Your task to perform on an android device: toggle translation in the chrome app Image 0: 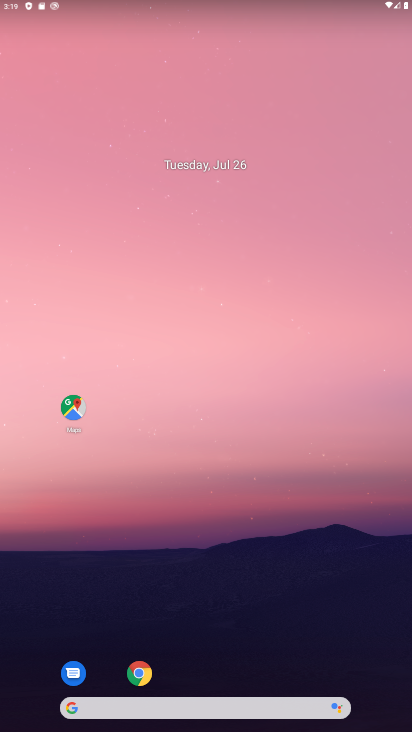
Step 0: drag from (301, 626) to (278, 71)
Your task to perform on an android device: toggle translation in the chrome app Image 1: 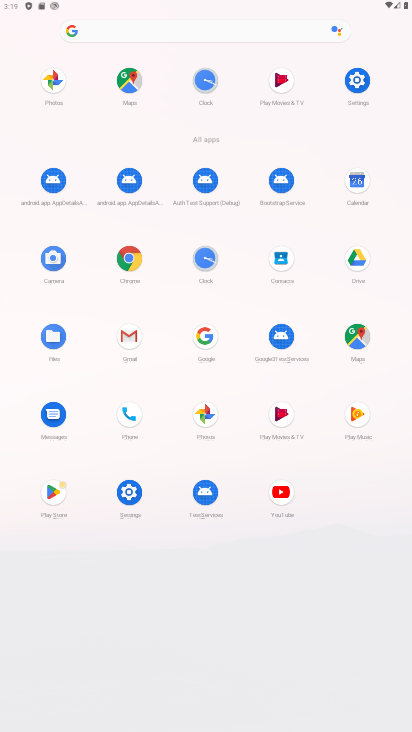
Step 1: click (130, 259)
Your task to perform on an android device: toggle translation in the chrome app Image 2: 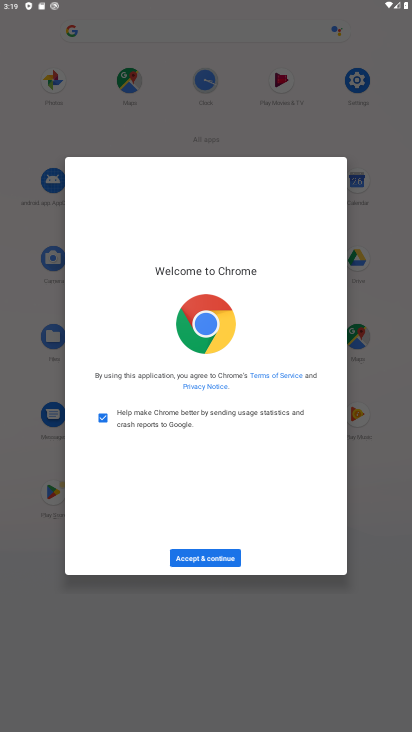
Step 2: click (187, 556)
Your task to perform on an android device: toggle translation in the chrome app Image 3: 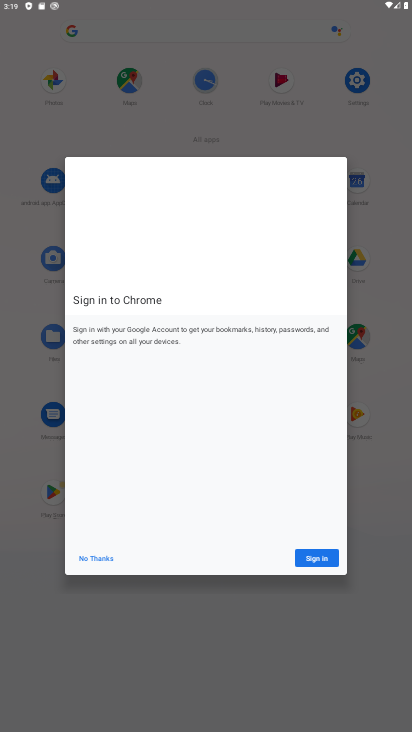
Step 3: click (324, 556)
Your task to perform on an android device: toggle translation in the chrome app Image 4: 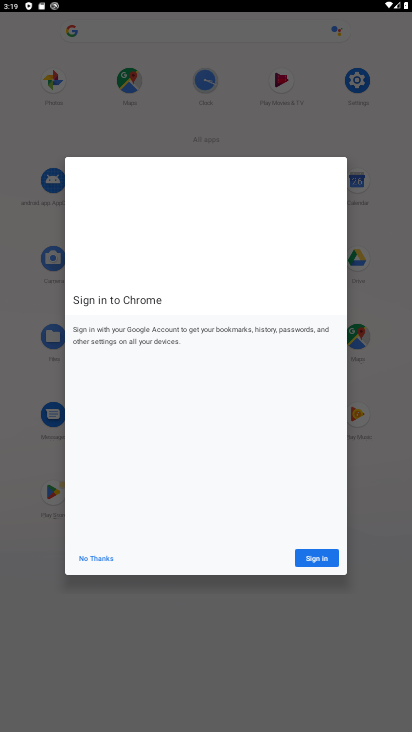
Step 4: click (320, 555)
Your task to perform on an android device: toggle translation in the chrome app Image 5: 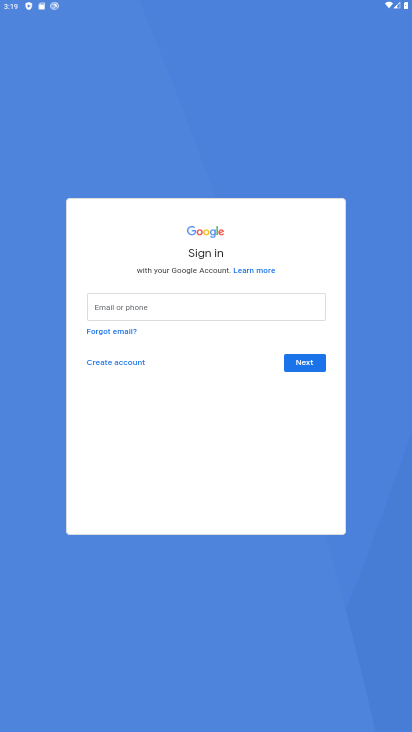
Step 5: task complete